Your task to perform on an android device: Go to sound settings Image 0: 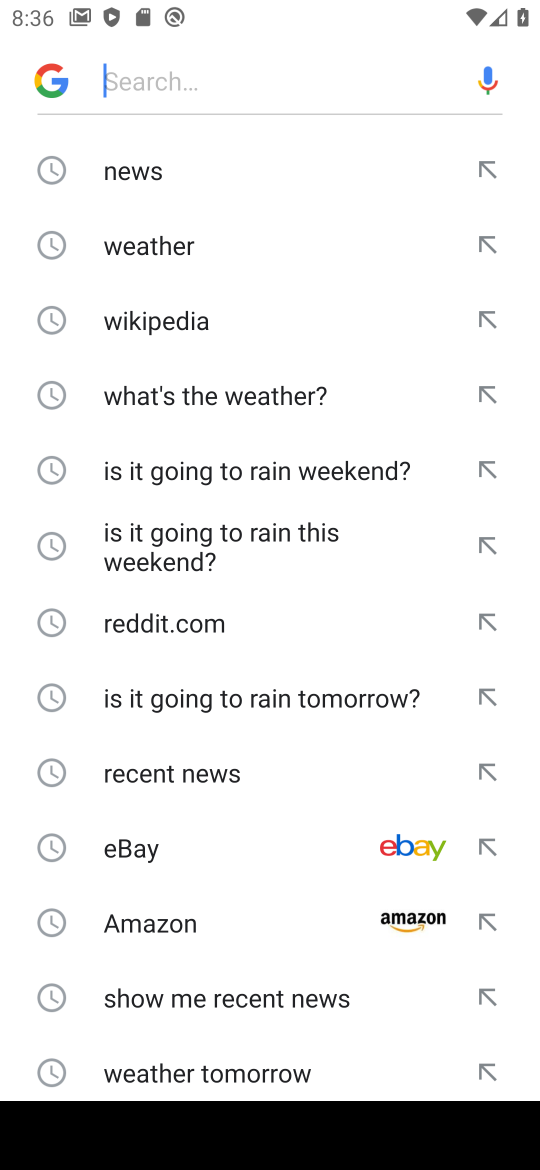
Step 0: press home button
Your task to perform on an android device: Go to sound settings Image 1: 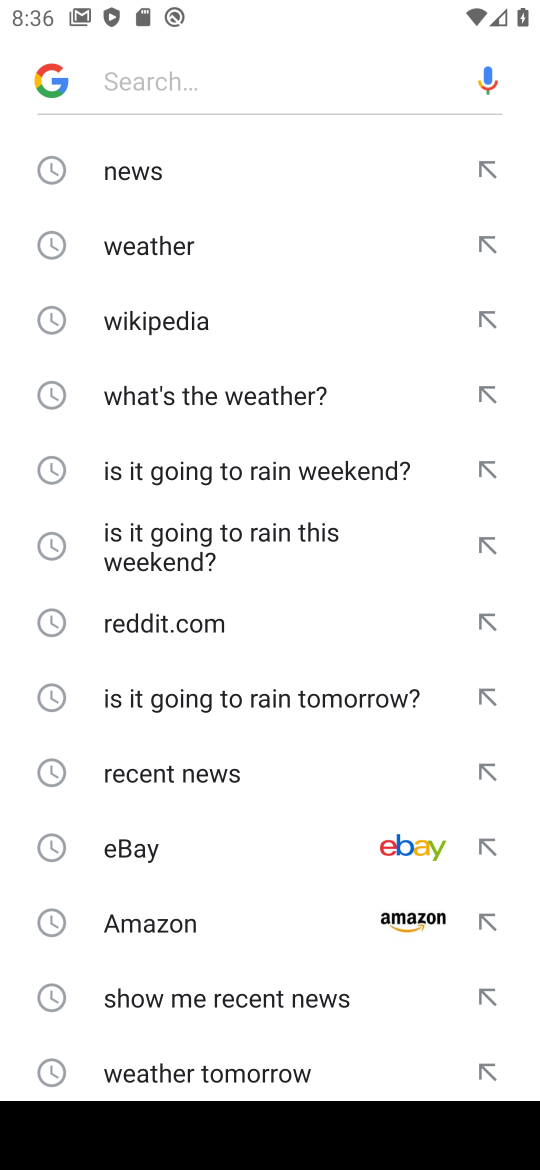
Step 1: press home button
Your task to perform on an android device: Go to sound settings Image 2: 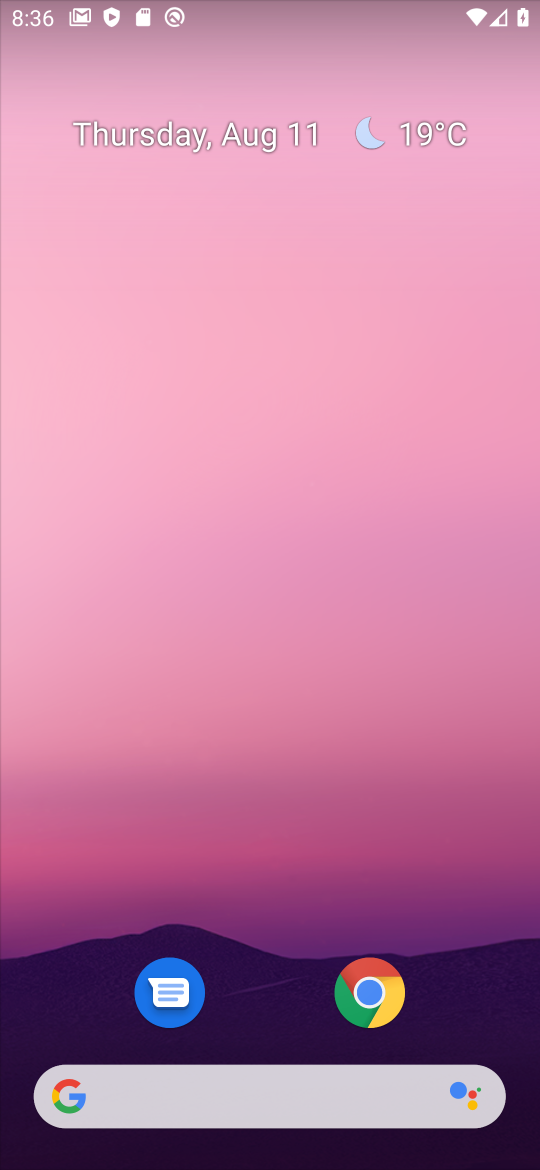
Step 2: press home button
Your task to perform on an android device: Go to sound settings Image 3: 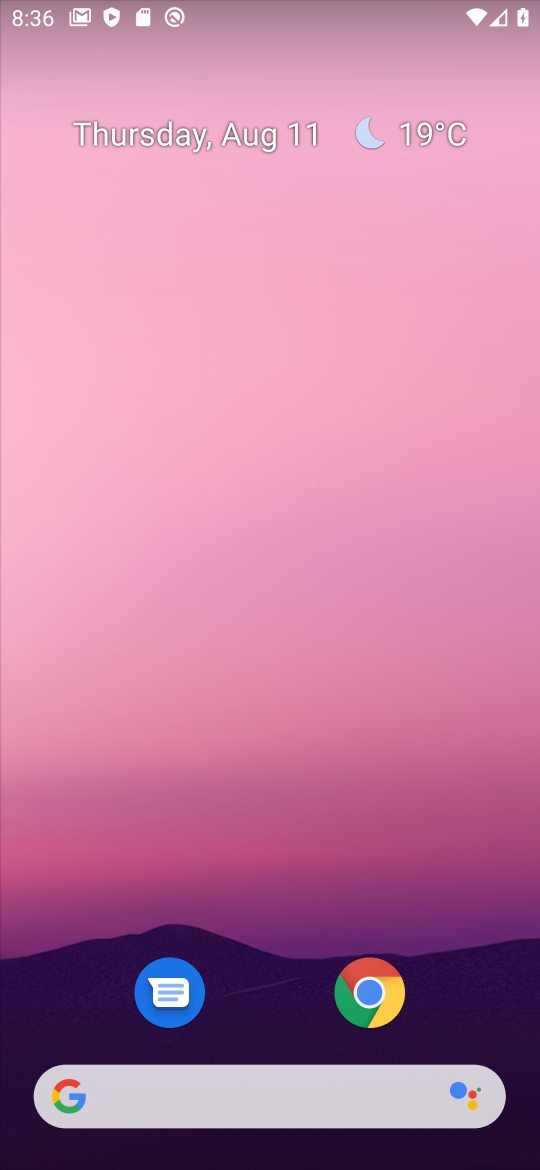
Step 3: press home button
Your task to perform on an android device: Go to sound settings Image 4: 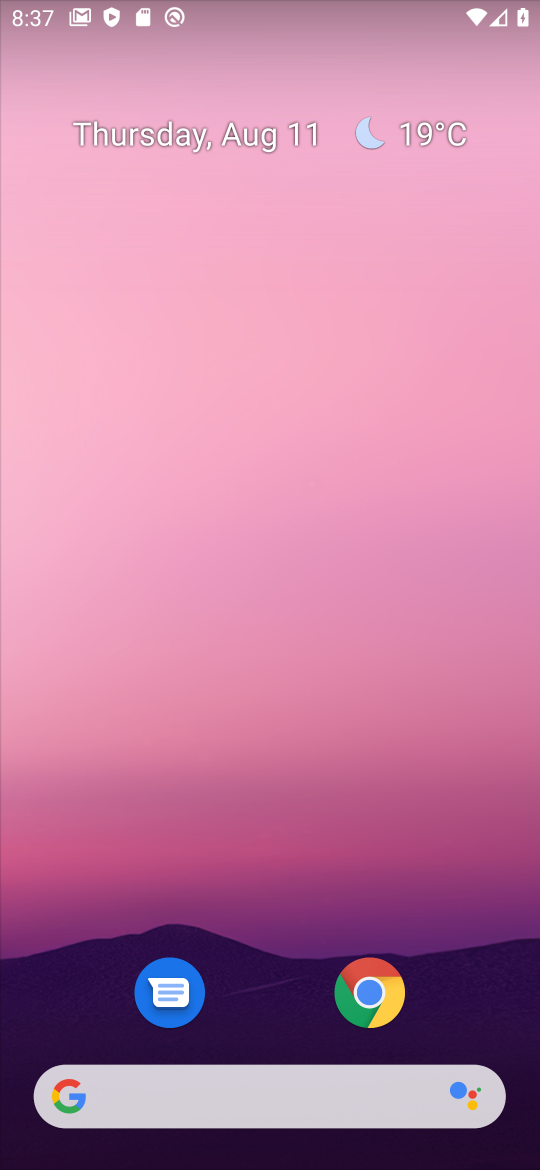
Step 4: drag from (280, 954) to (289, 177)
Your task to perform on an android device: Go to sound settings Image 5: 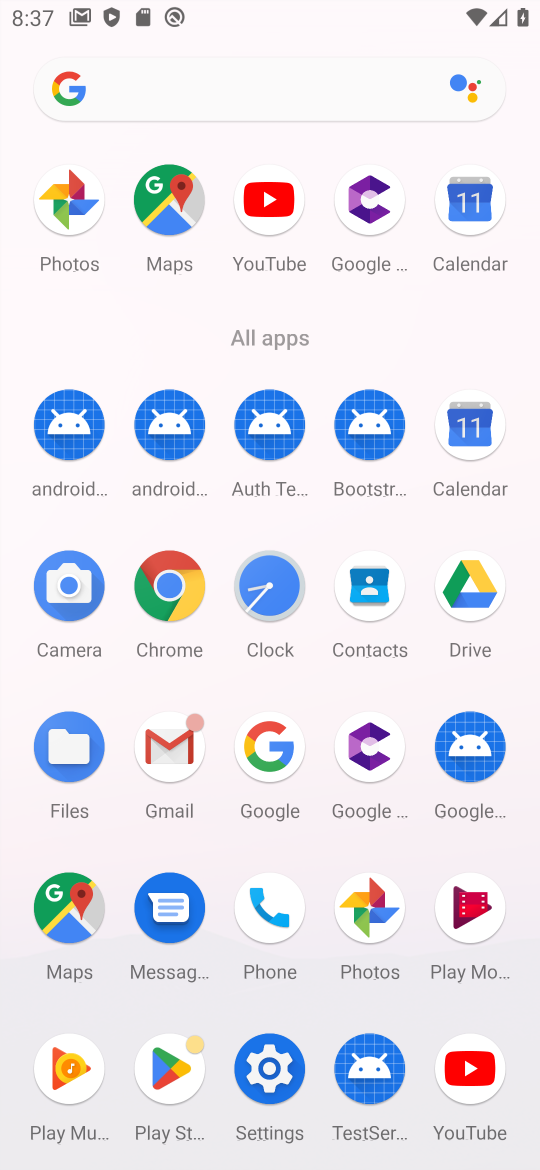
Step 5: click (267, 1052)
Your task to perform on an android device: Go to sound settings Image 6: 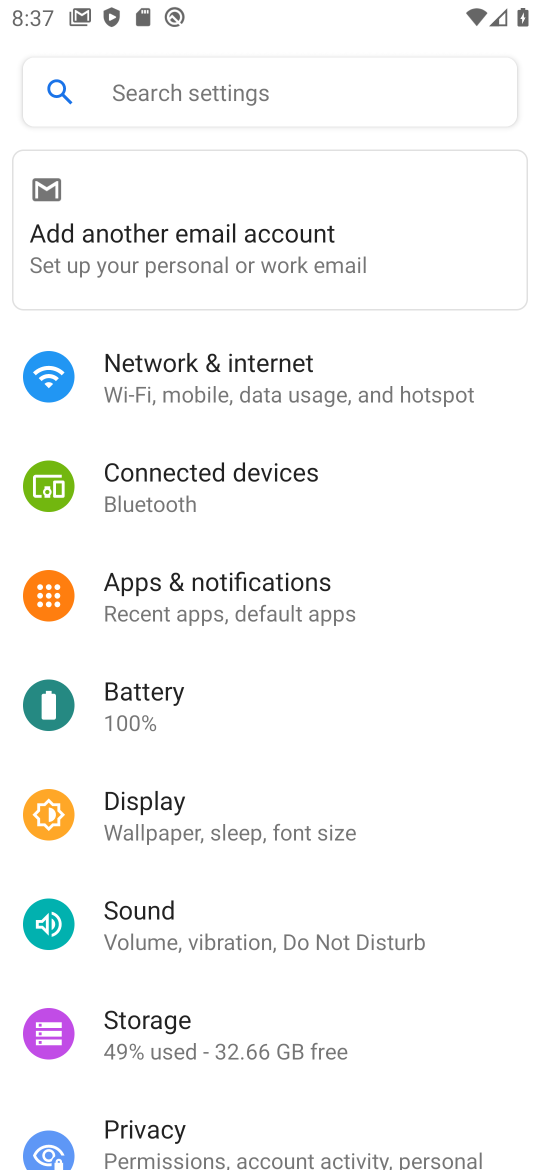
Step 6: click (250, 934)
Your task to perform on an android device: Go to sound settings Image 7: 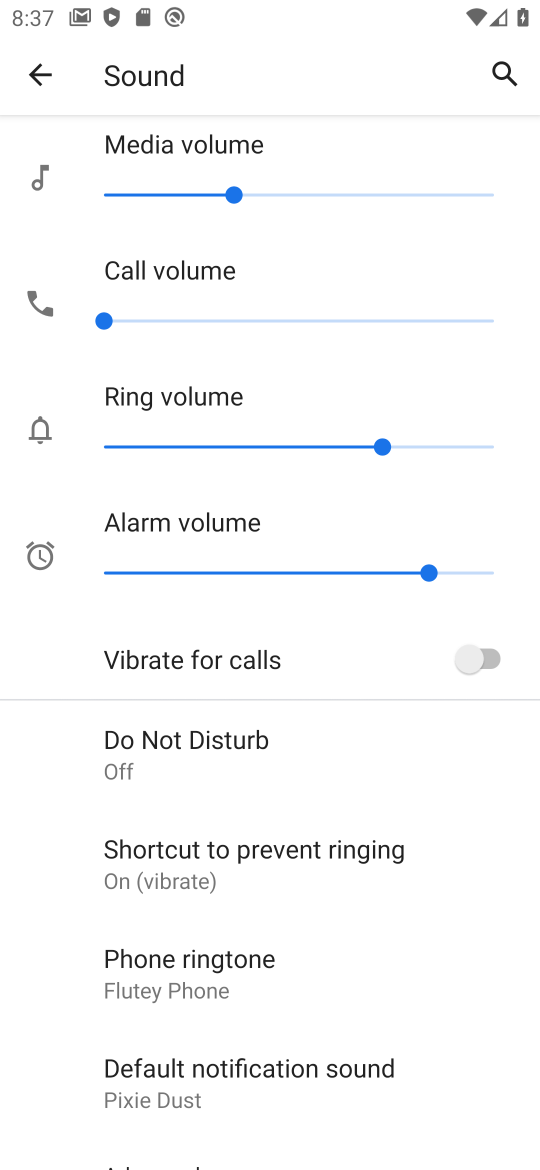
Step 7: task complete